Your task to perform on an android device: Open location settings Image 0: 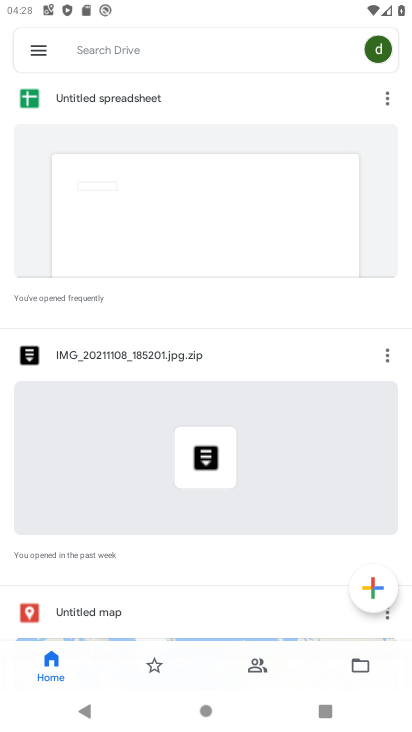
Step 0: press home button
Your task to perform on an android device: Open location settings Image 1: 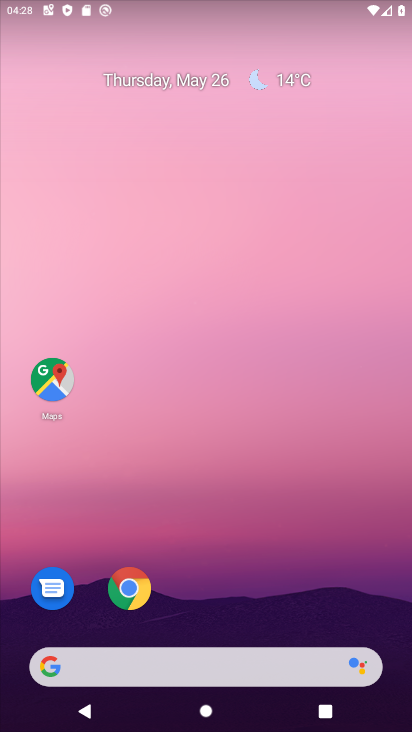
Step 1: drag from (240, 610) to (273, 200)
Your task to perform on an android device: Open location settings Image 2: 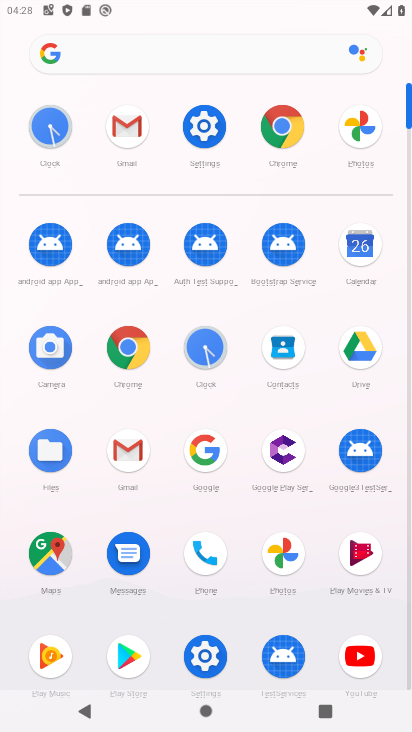
Step 2: click (205, 157)
Your task to perform on an android device: Open location settings Image 3: 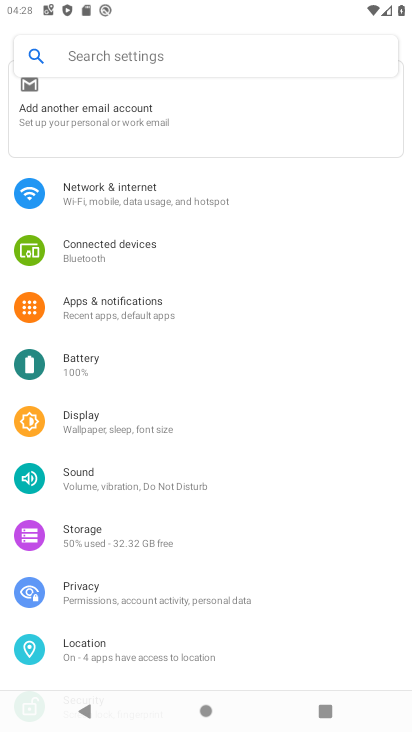
Step 3: click (125, 639)
Your task to perform on an android device: Open location settings Image 4: 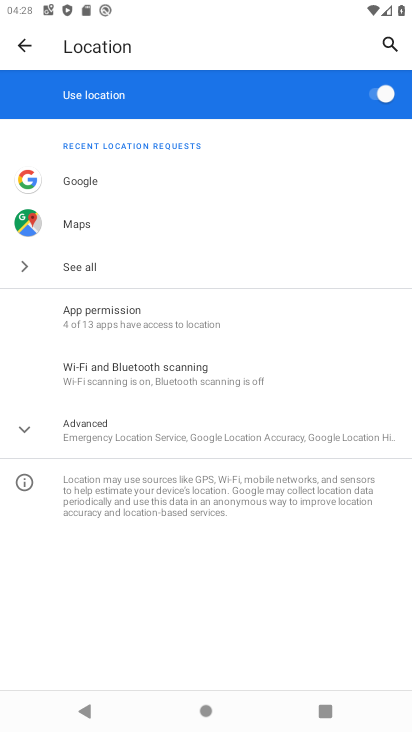
Step 4: task complete